Your task to perform on an android device: Is it going to rain today? Image 0: 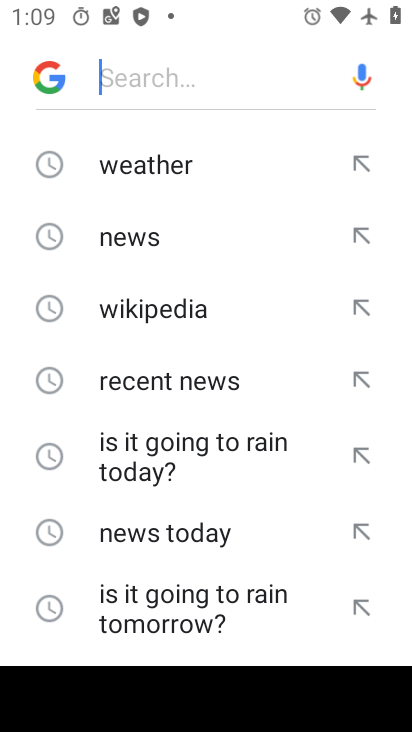
Step 0: press home button
Your task to perform on an android device: Is it going to rain today? Image 1: 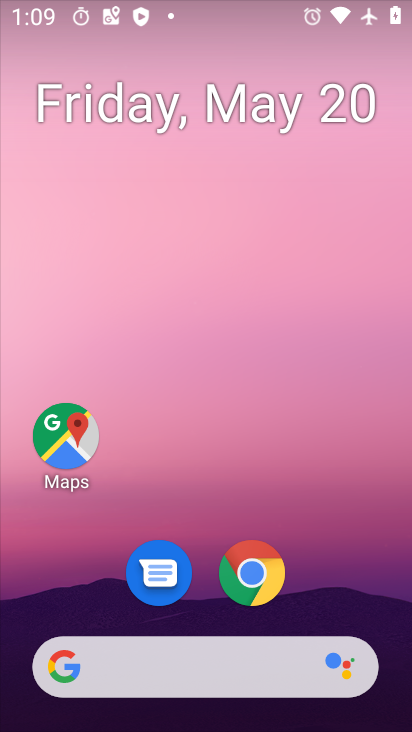
Step 1: drag from (320, 435) to (268, 88)
Your task to perform on an android device: Is it going to rain today? Image 2: 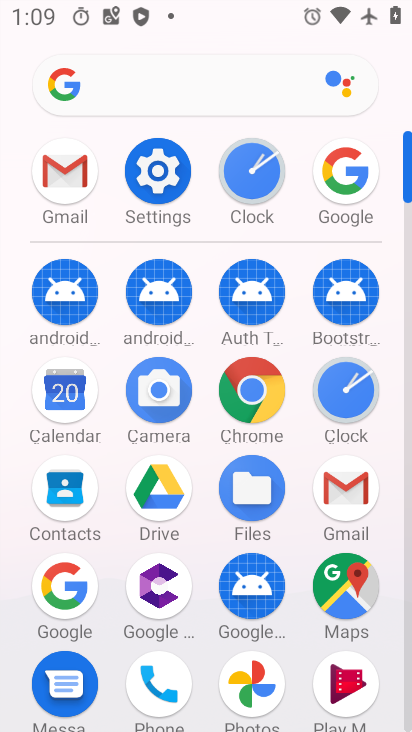
Step 2: click (345, 170)
Your task to perform on an android device: Is it going to rain today? Image 3: 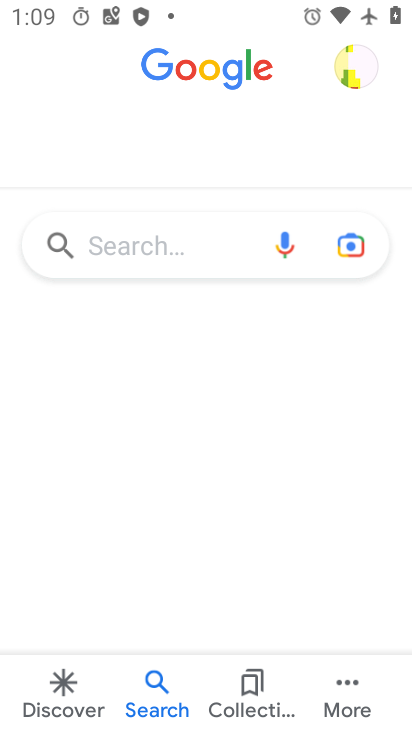
Step 3: click (153, 242)
Your task to perform on an android device: Is it going to rain today? Image 4: 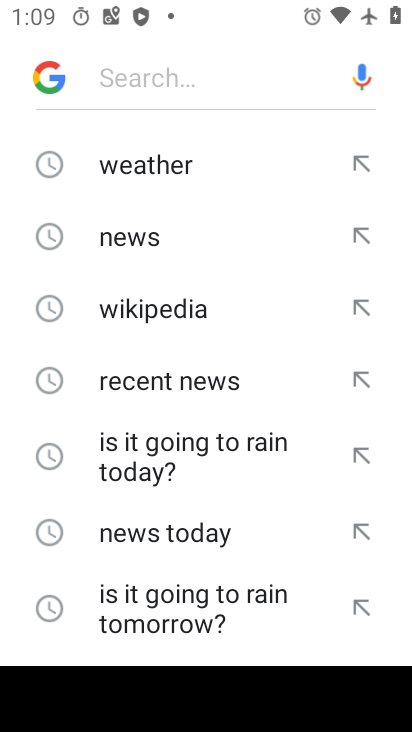
Step 4: click (179, 457)
Your task to perform on an android device: Is it going to rain today? Image 5: 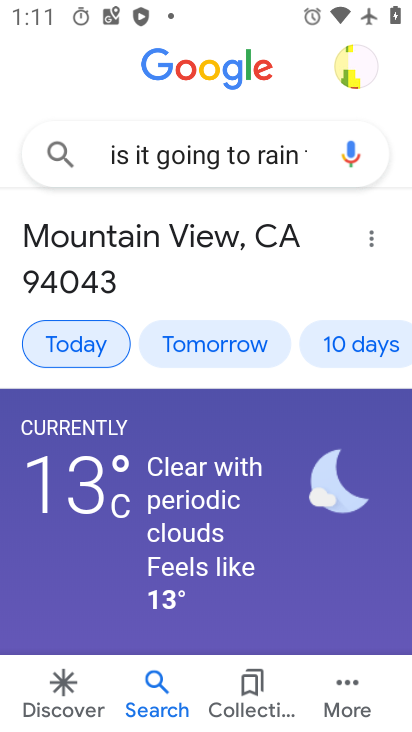
Step 5: task complete